Your task to perform on an android device: turn on airplane mode Image 0: 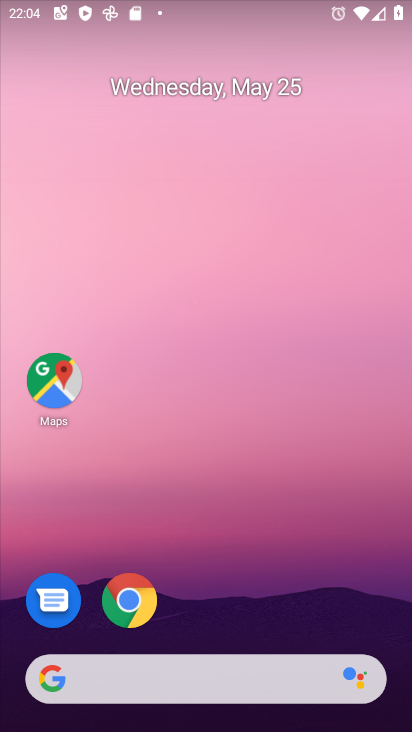
Step 0: press home button
Your task to perform on an android device: turn on airplane mode Image 1: 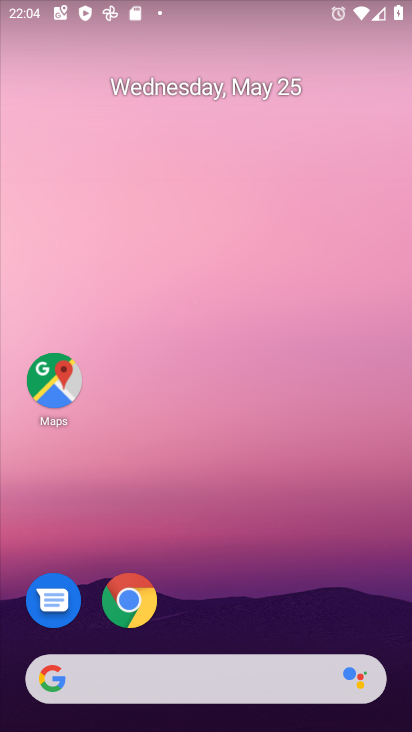
Step 1: drag from (327, 585) to (353, 207)
Your task to perform on an android device: turn on airplane mode Image 2: 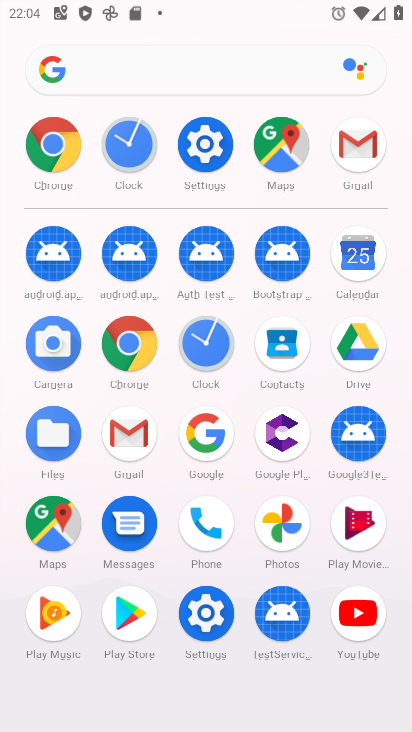
Step 2: click (221, 616)
Your task to perform on an android device: turn on airplane mode Image 3: 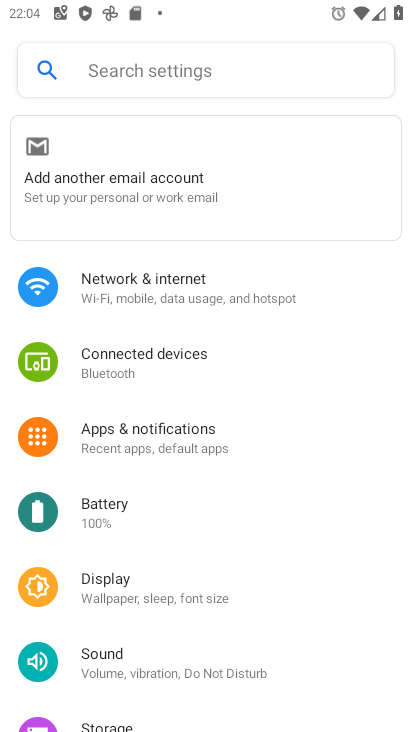
Step 3: click (221, 293)
Your task to perform on an android device: turn on airplane mode Image 4: 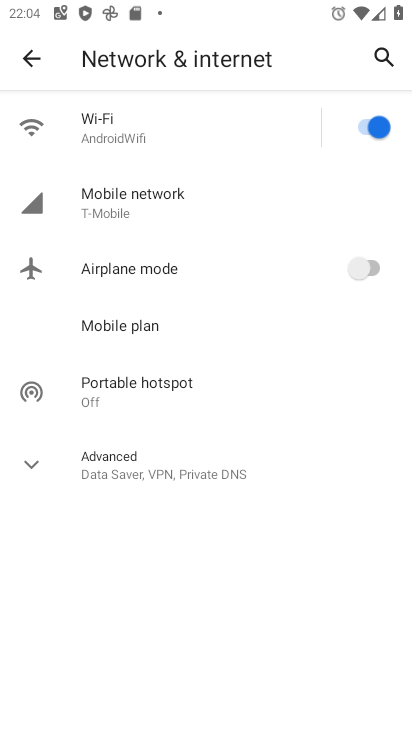
Step 4: click (371, 268)
Your task to perform on an android device: turn on airplane mode Image 5: 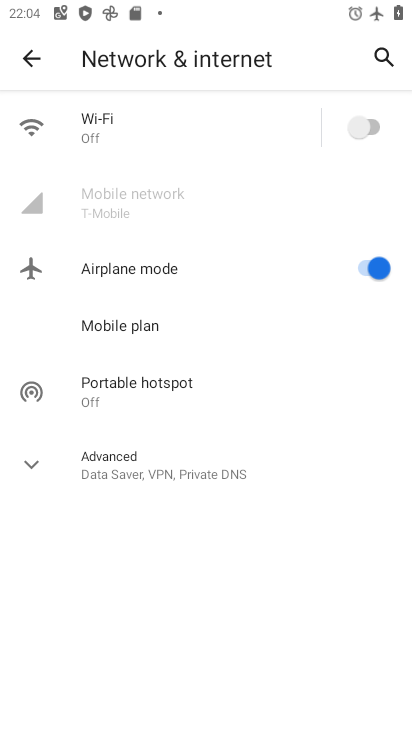
Step 5: task complete